Your task to perform on an android device: Open settings on Google Maps Image 0: 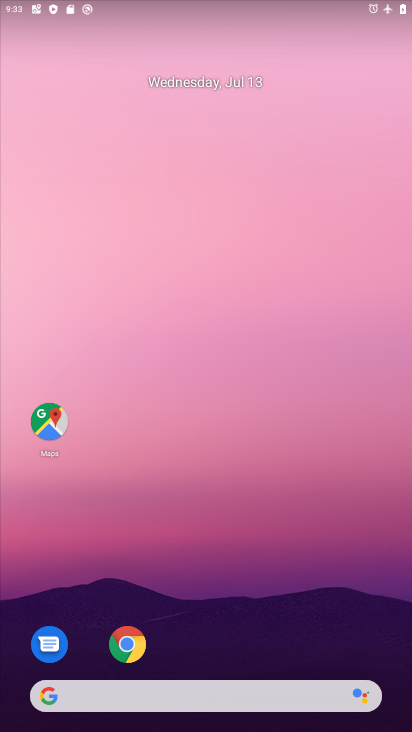
Step 0: drag from (229, 725) to (261, 133)
Your task to perform on an android device: Open settings on Google Maps Image 1: 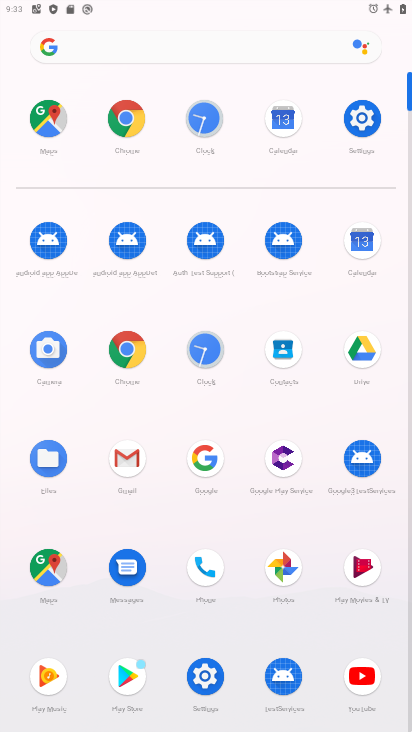
Step 1: click (55, 560)
Your task to perform on an android device: Open settings on Google Maps Image 2: 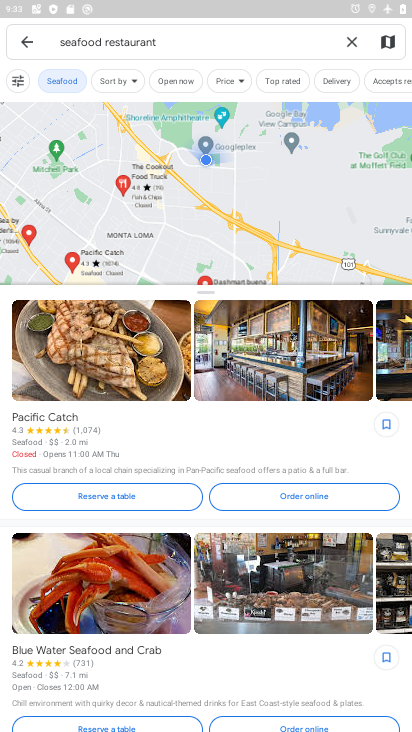
Step 2: click (28, 36)
Your task to perform on an android device: Open settings on Google Maps Image 3: 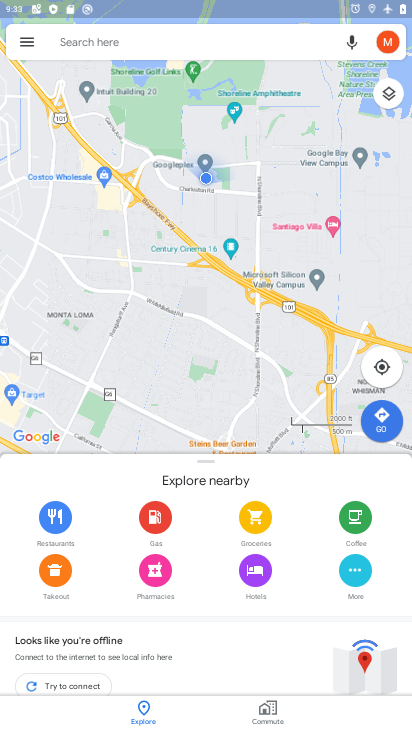
Step 3: click (23, 42)
Your task to perform on an android device: Open settings on Google Maps Image 4: 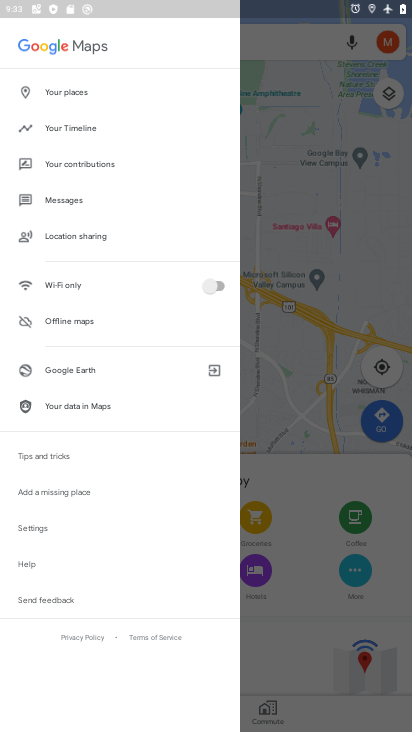
Step 4: click (36, 525)
Your task to perform on an android device: Open settings on Google Maps Image 5: 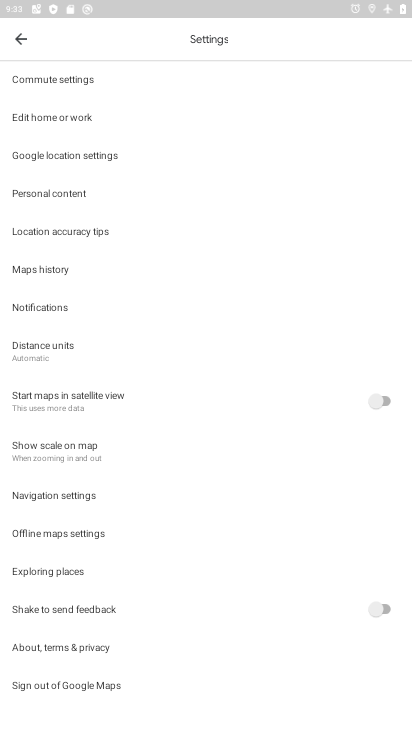
Step 5: task complete